Your task to perform on an android device: toggle data saver in the chrome app Image 0: 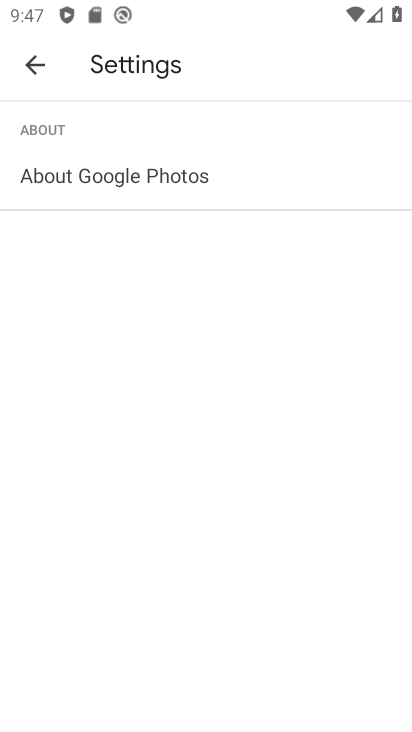
Step 0: press home button
Your task to perform on an android device: toggle data saver in the chrome app Image 1: 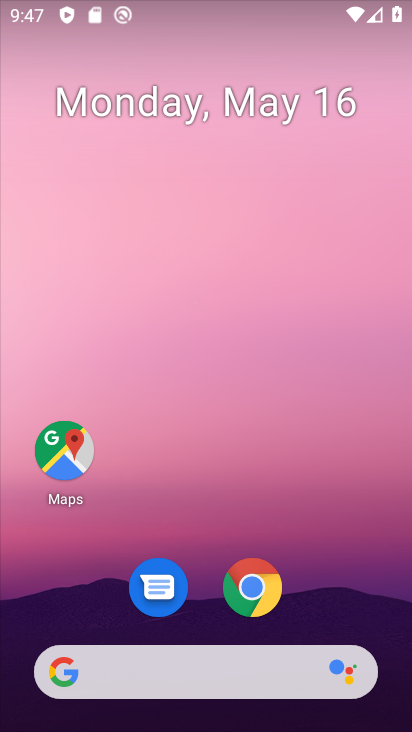
Step 1: click (260, 573)
Your task to perform on an android device: toggle data saver in the chrome app Image 2: 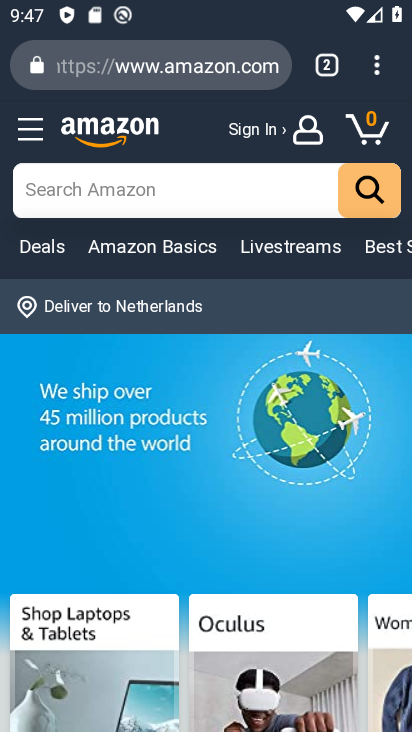
Step 2: click (363, 70)
Your task to perform on an android device: toggle data saver in the chrome app Image 3: 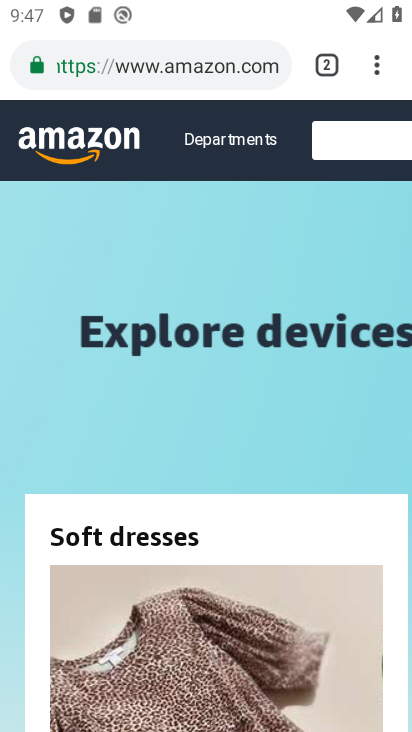
Step 3: drag from (376, 78) to (166, 626)
Your task to perform on an android device: toggle data saver in the chrome app Image 4: 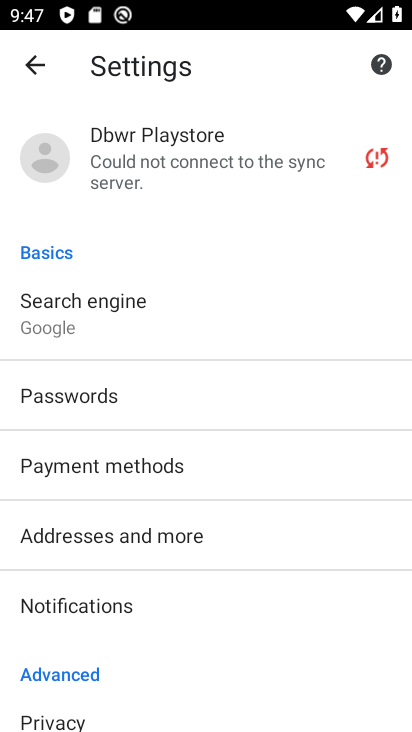
Step 4: drag from (65, 591) to (1, 176)
Your task to perform on an android device: toggle data saver in the chrome app Image 5: 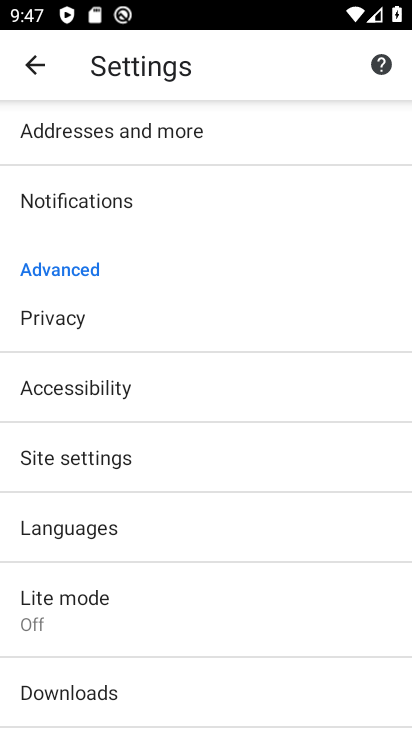
Step 5: click (131, 623)
Your task to perform on an android device: toggle data saver in the chrome app Image 6: 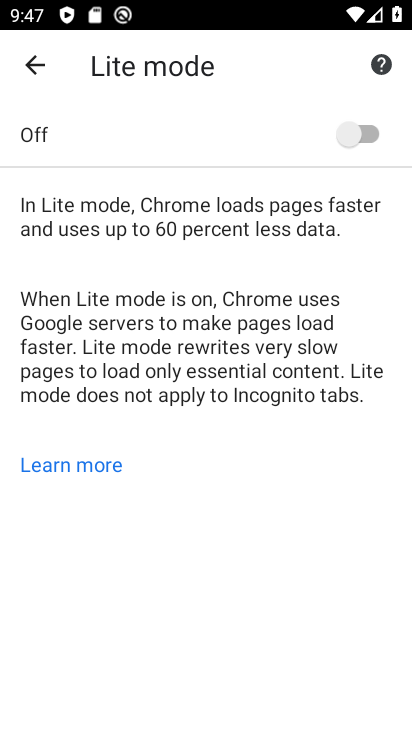
Step 6: click (338, 155)
Your task to perform on an android device: toggle data saver in the chrome app Image 7: 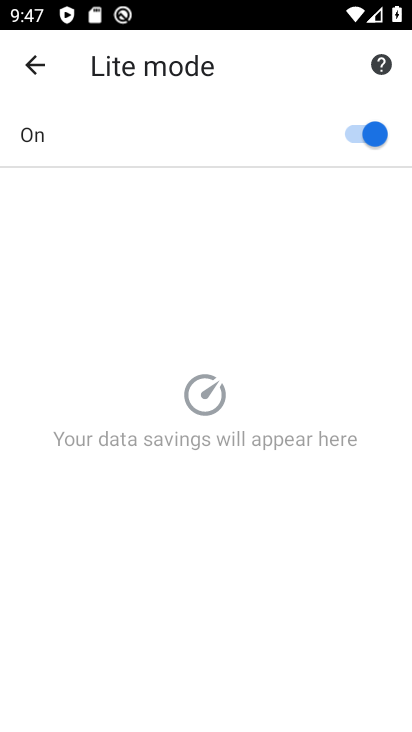
Step 7: task complete